Your task to perform on an android device: change timer sound Image 0: 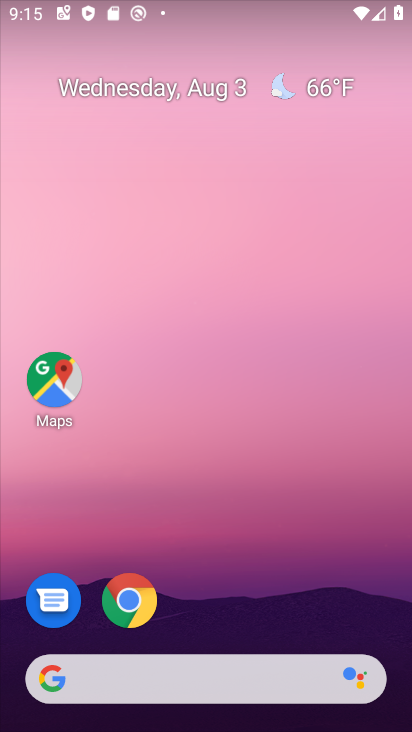
Step 0: drag from (195, 628) to (150, 3)
Your task to perform on an android device: change timer sound Image 1: 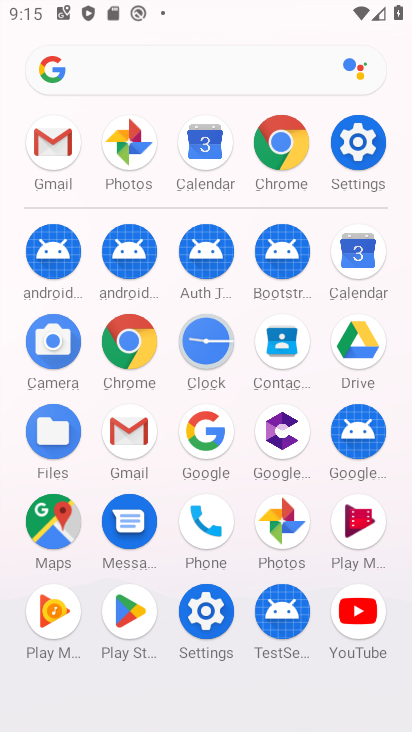
Step 1: click (210, 609)
Your task to perform on an android device: change timer sound Image 2: 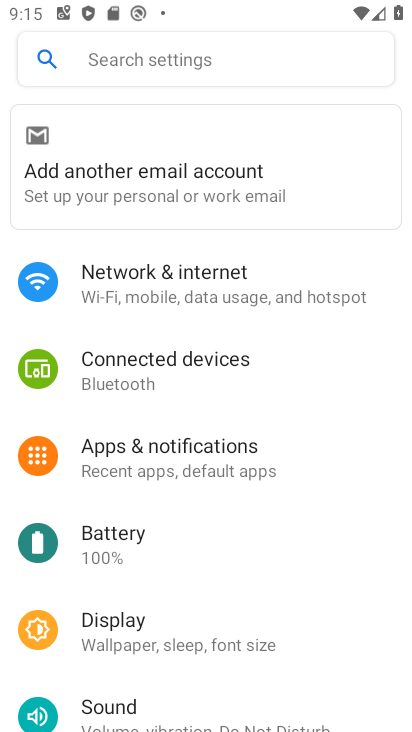
Step 2: press home button
Your task to perform on an android device: change timer sound Image 3: 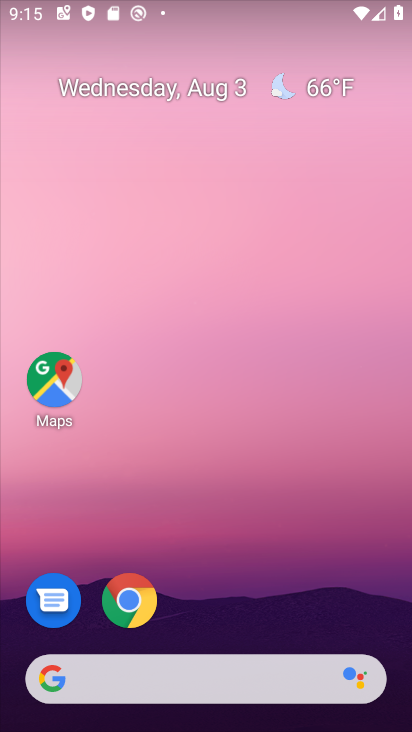
Step 3: drag from (189, 639) to (191, 94)
Your task to perform on an android device: change timer sound Image 4: 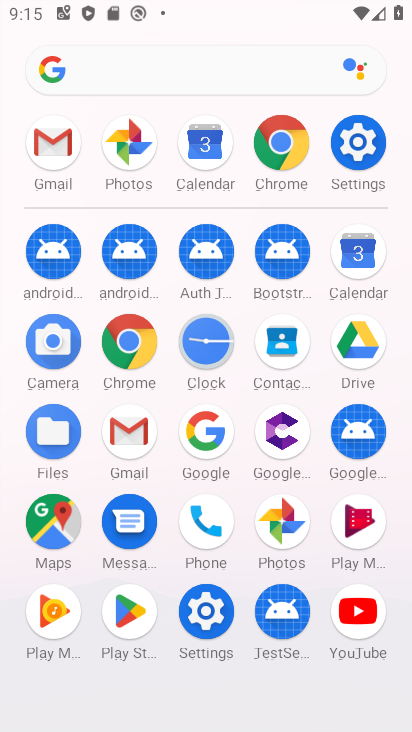
Step 4: click (217, 372)
Your task to perform on an android device: change timer sound Image 5: 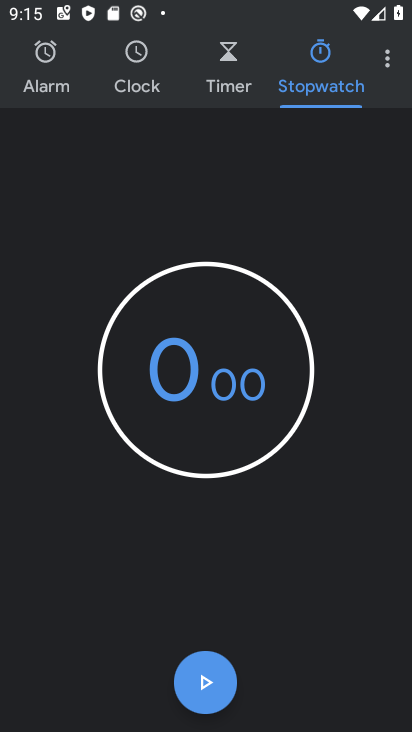
Step 5: click (383, 54)
Your task to perform on an android device: change timer sound Image 6: 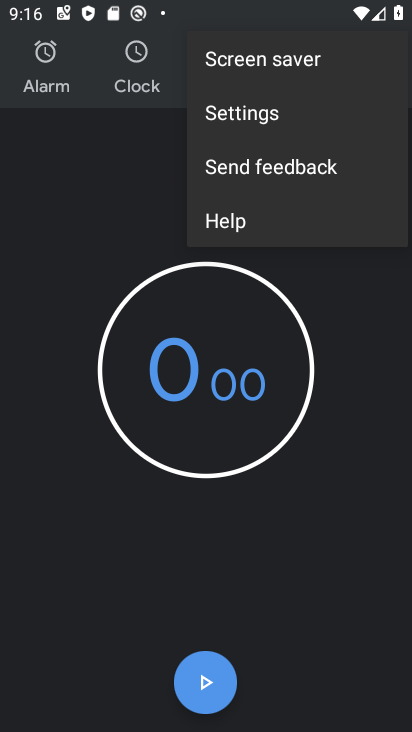
Step 6: click (232, 111)
Your task to perform on an android device: change timer sound Image 7: 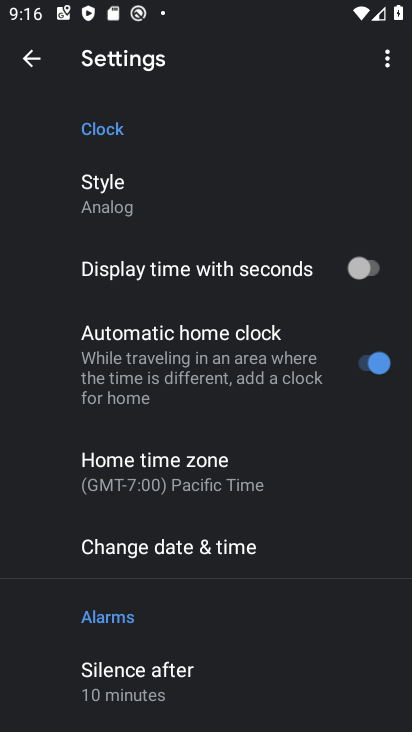
Step 7: drag from (156, 504) to (166, 153)
Your task to perform on an android device: change timer sound Image 8: 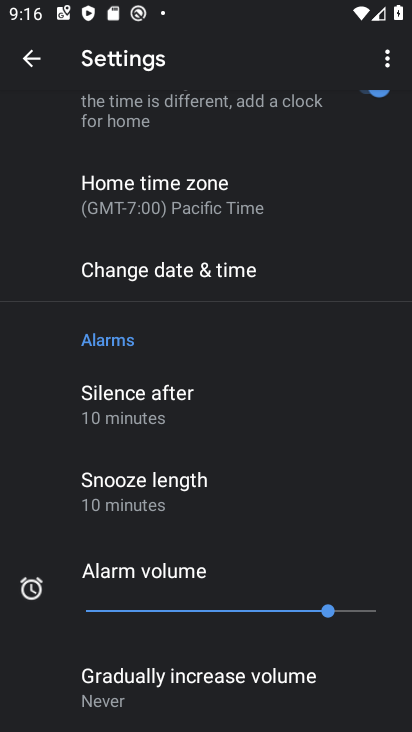
Step 8: drag from (113, 518) to (152, 205)
Your task to perform on an android device: change timer sound Image 9: 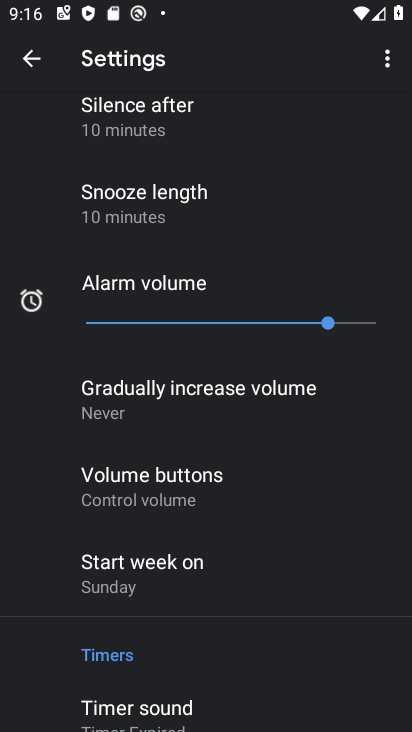
Step 9: drag from (181, 592) to (199, 352)
Your task to perform on an android device: change timer sound Image 10: 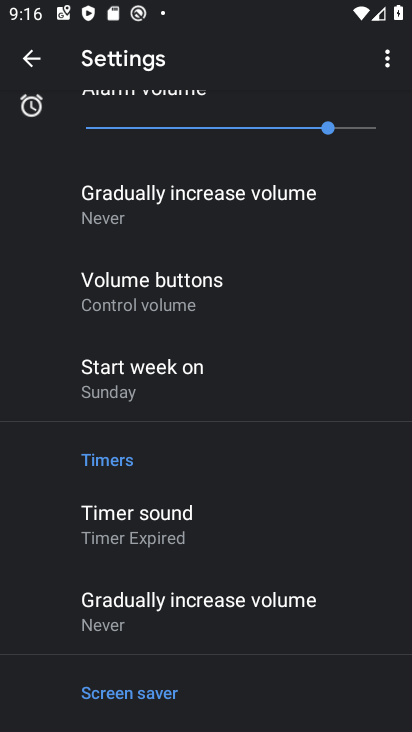
Step 10: click (147, 530)
Your task to perform on an android device: change timer sound Image 11: 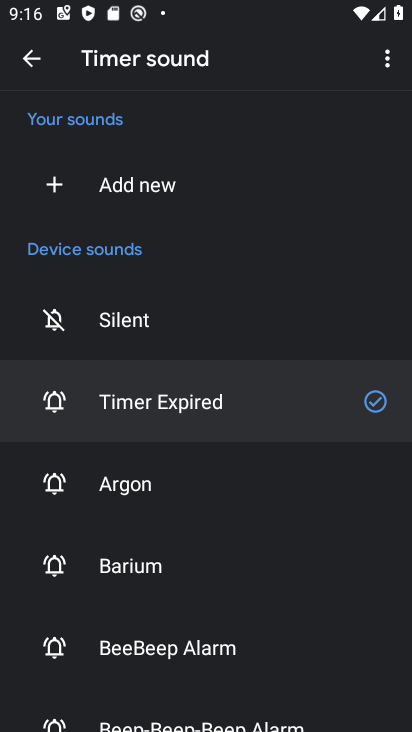
Step 11: click (120, 502)
Your task to perform on an android device: change timer sound Image 12: 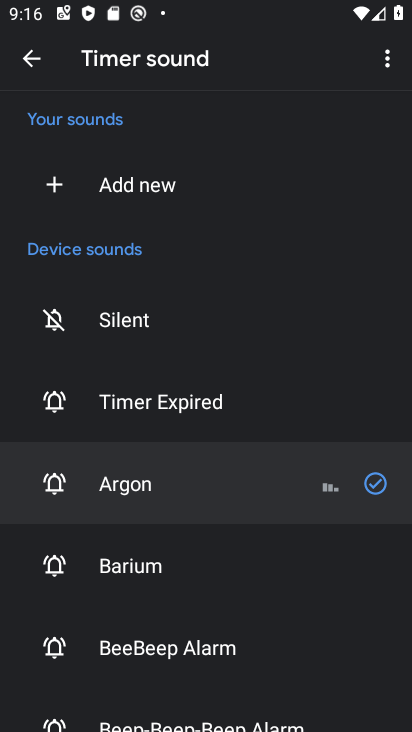
Step 12: task complete